Your task to perform on an android device: make emails show in primary in the gmail app Image 0: 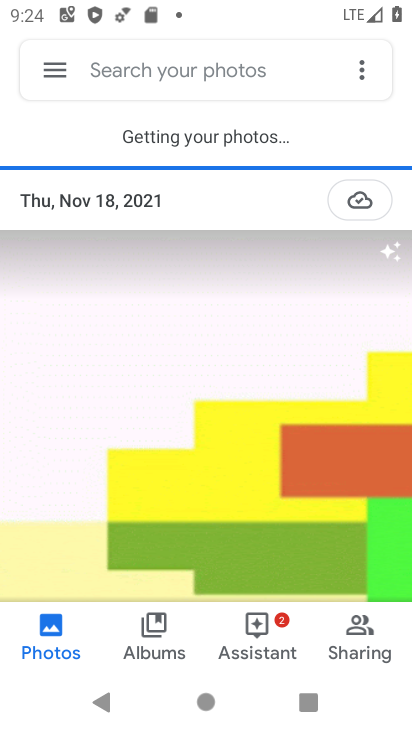
Step 0: press home button
Your task to perform on an android device: make emails show in primary in the gmail app Image 1: 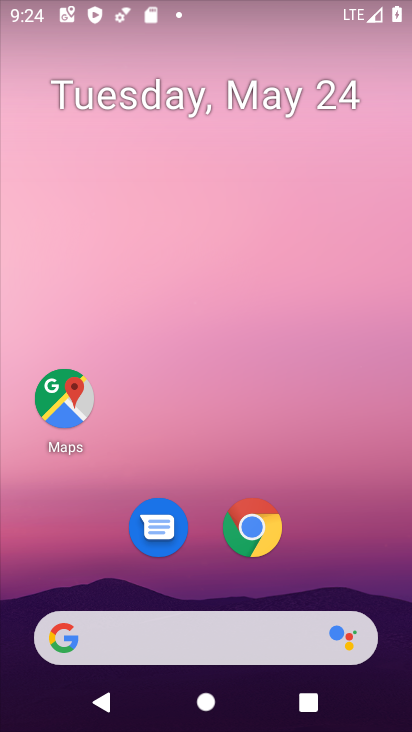
Step 1: drag from (176, 409) to (198, 55)
Your task to perform on an android device: make emails show in primary in the gmail app Image 2: 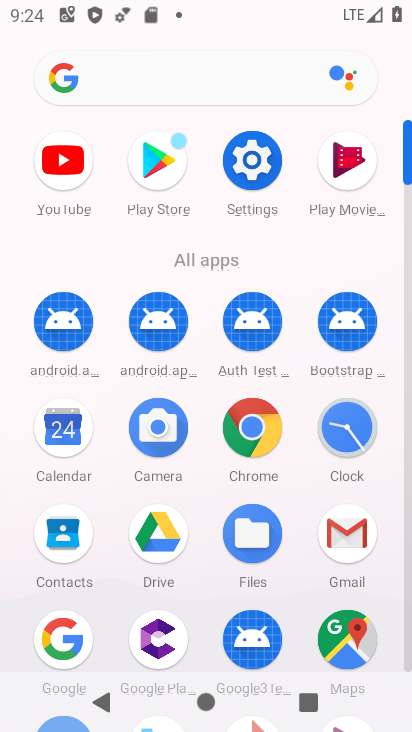
Step 2: click (354, 533)
Your task to perform on an android device: make emails show in primary in the gmail app Image 3: 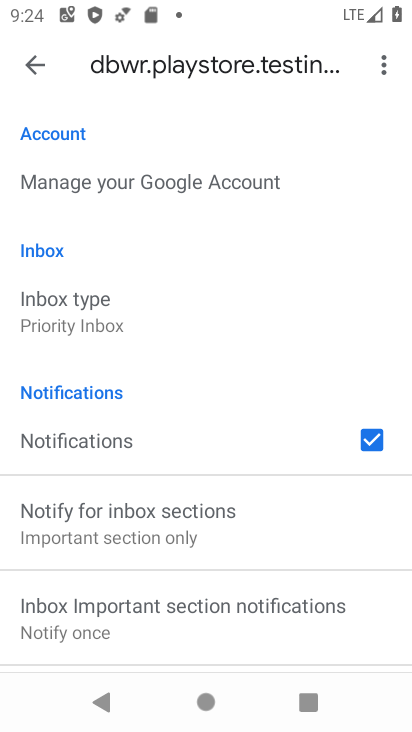
Step 3: click (101, 330)
Your task to perform on an android device: make emails show in primary in the gmail app Image 4: 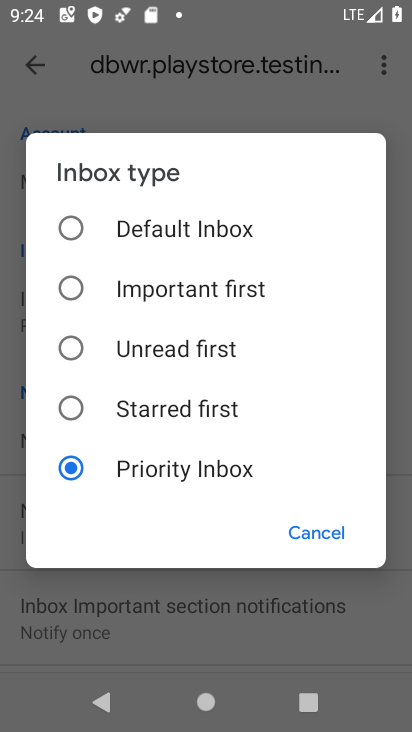
Step 4: click (64, 227)
Your task to perform on an android device: make emails show in primary in the gmail app Image 5: 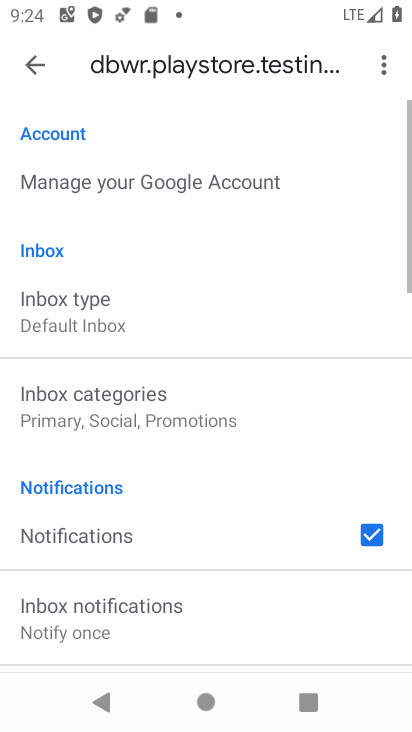
Step 5: task complete